Your task to perform on an android device: snooze an email in the gmail app Image 0: 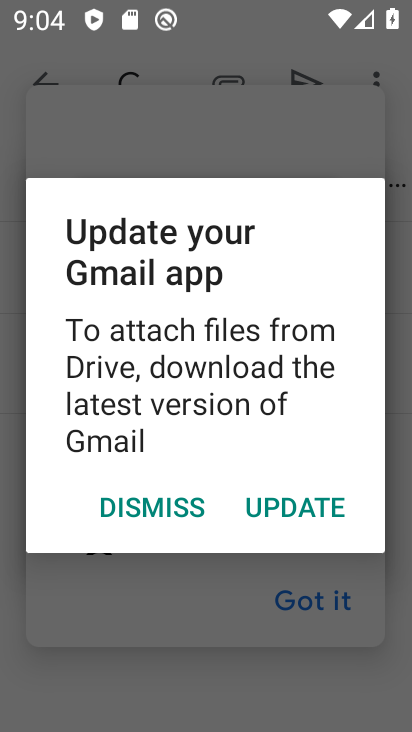
Step 0: drag from (388, 597) to (313, 267)
Your task to perform on an android device: snooze an email in the gmail app Image 1: 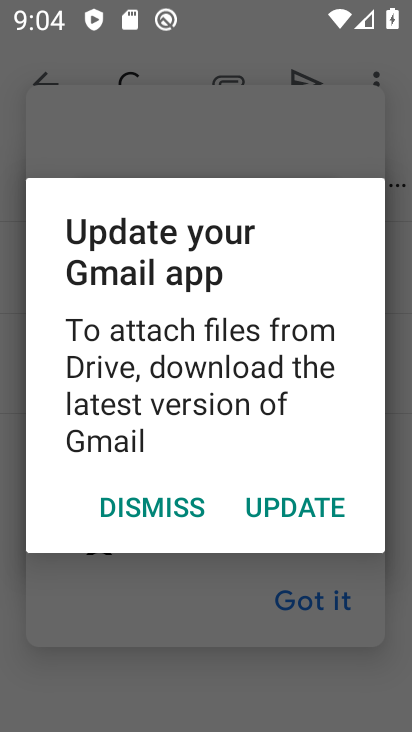
Step 1: press home button
Your task to perform on an android device: snooze an email in the gmail app Image 2: 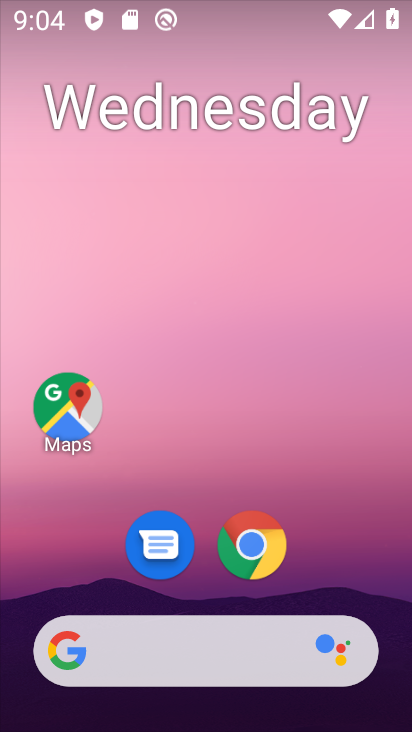
Step 2: drag from (326, 591) to (248, 79)
Your task to perform on an android device: snooze an email in the gmail app Image 3: 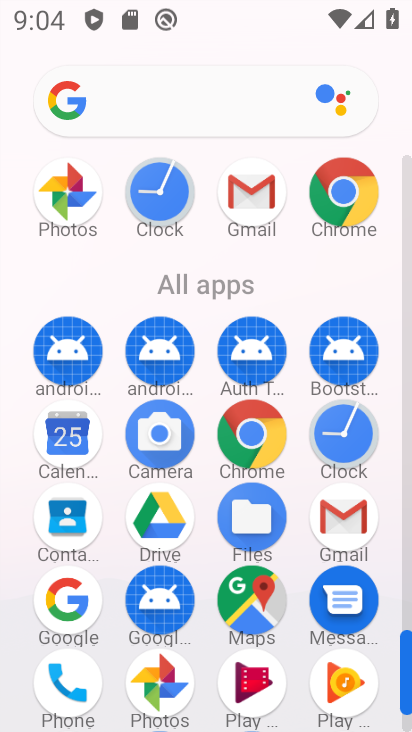
Step 3: click (252, 198)
Your task to perform on an android device: snooze an email in the gmail app Image 4: 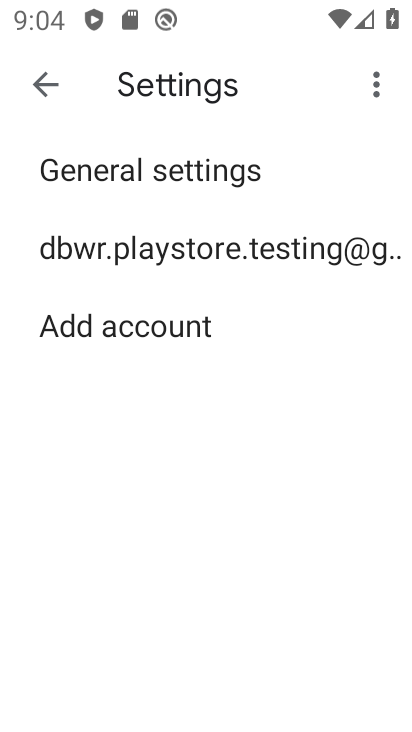
Step 4: click (42, 79)
Your task to perform on an android device: snooze an email in the gmail app Image 5: 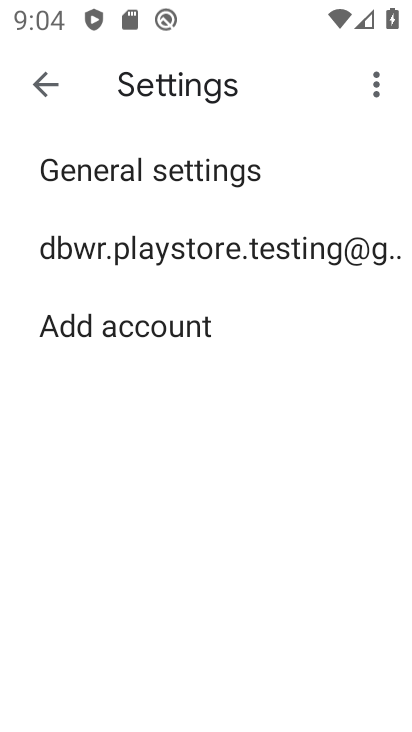
Step 5: task complete